Your task to perform on an android device: Go to CNN.com Image 0: 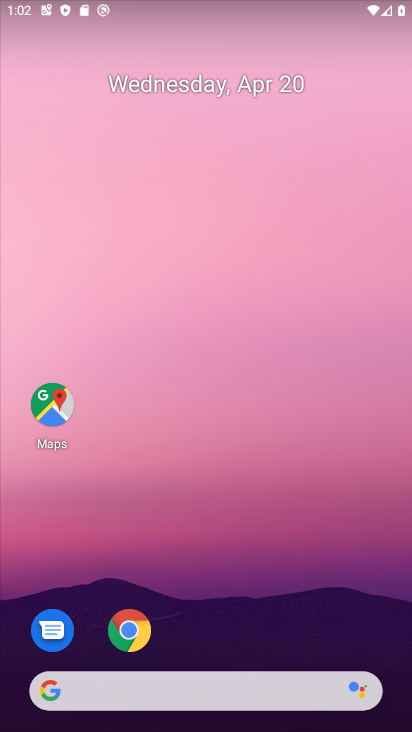
Step 0: drag from (361, 620) to (341, 215)
Your task to perform on an android device: Go to CNN.com Image 1: 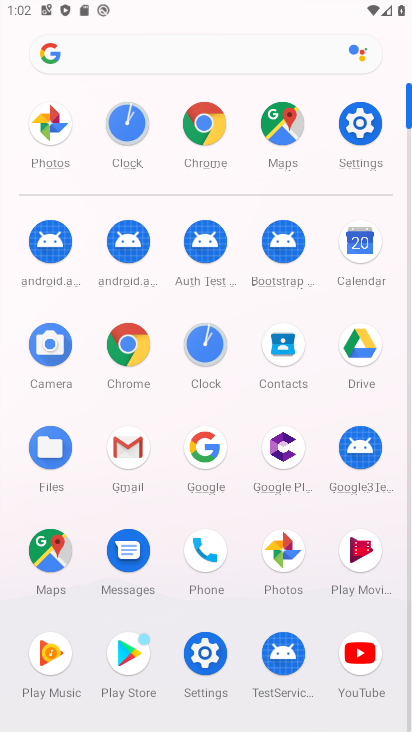
Step 1: click (137, 355)
Your task to perform on an android device: Go to CNN.com Image 2: 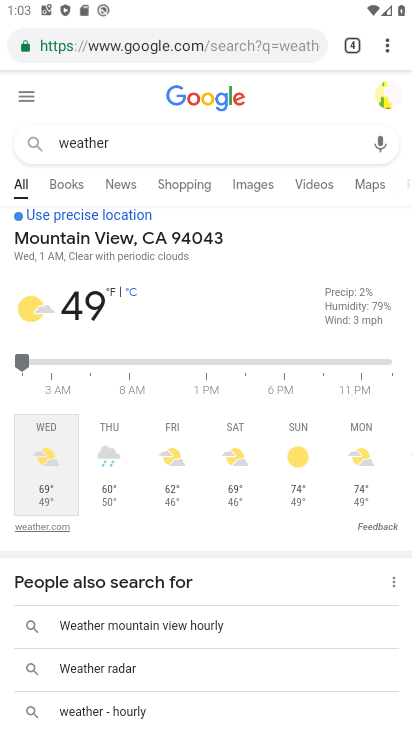
Step 2: click (170, 150)
Your task to perform on an android device: Go to CNN.com Image 3: 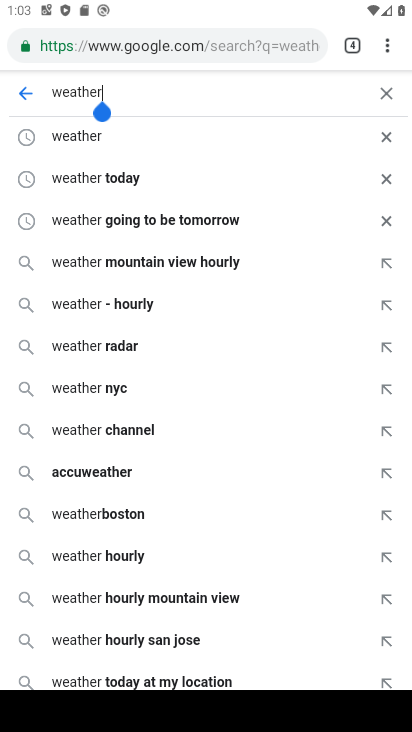
Step 3: click (118, 144)
Your task to perform on an android device: Go to CNN.com Image 4: 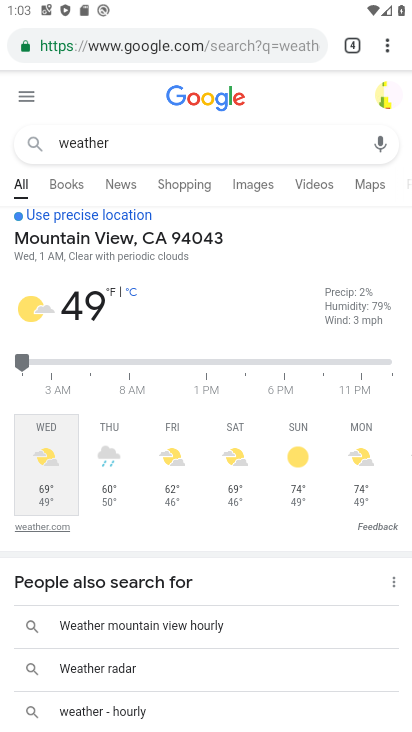
Step 4: click (186, 145)
Your task to perform on an android device: Go to CNN.com Image 5: 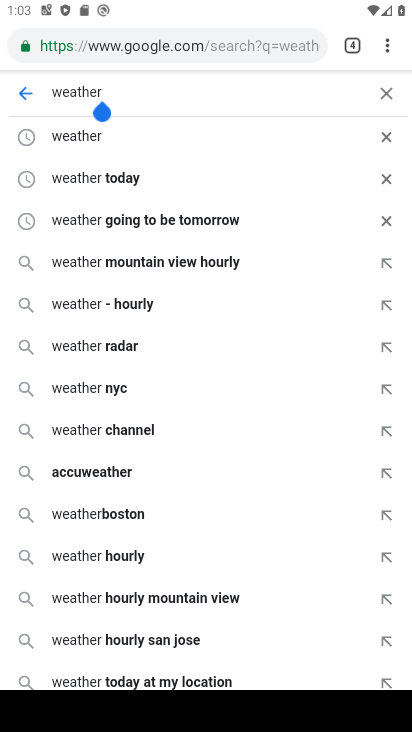
Step 5: click (380, 94)
Your task to perform on an android device: Go to CNN.com Image 6: 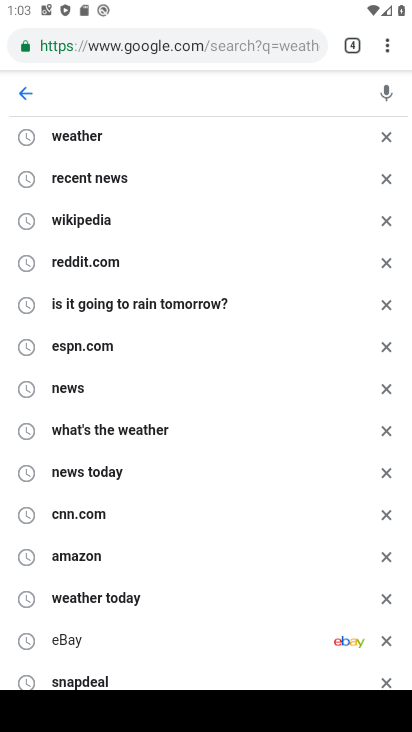
Step 6: type "cnn.com"
Your task to perform on an android device: Go to CNN.com Image 7: 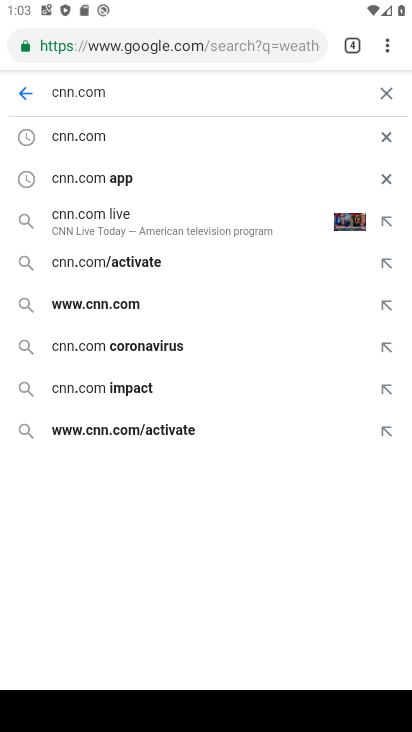
Step 7: click (102, 118)
Your task to perform on an android device: Go to CNN.com Image 8: 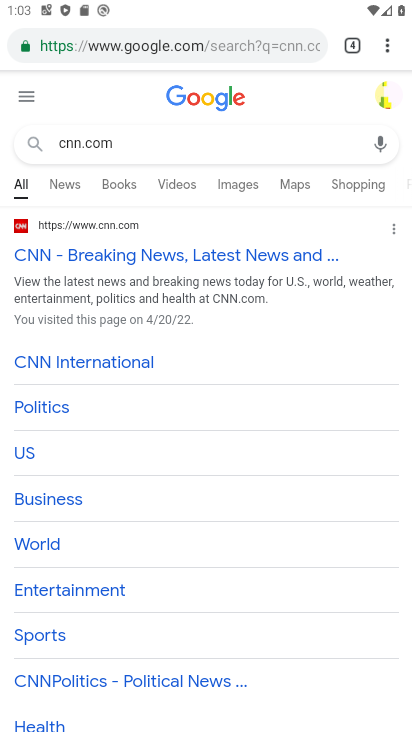
Step 8: click (78, 259)
Your task to perform on an android device: Go to CNN.com Image 9: 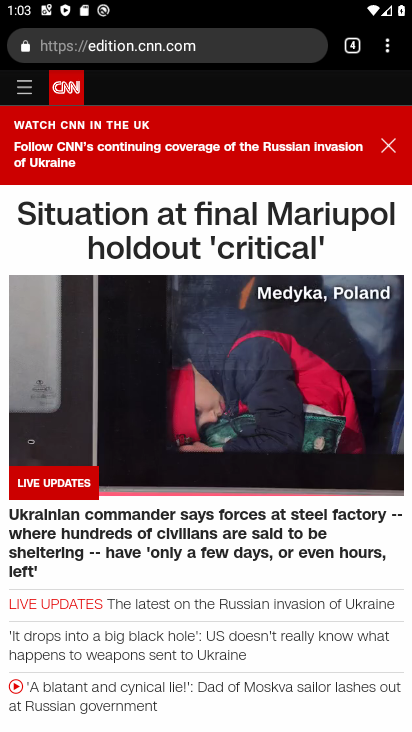
Step 9: task complete